Your task to perform on an android device: open app "Spotify: Music and Podcasts" (install if not already installed) and enter user name: "principled@inbox.com" and password: "arrests" Image 0: 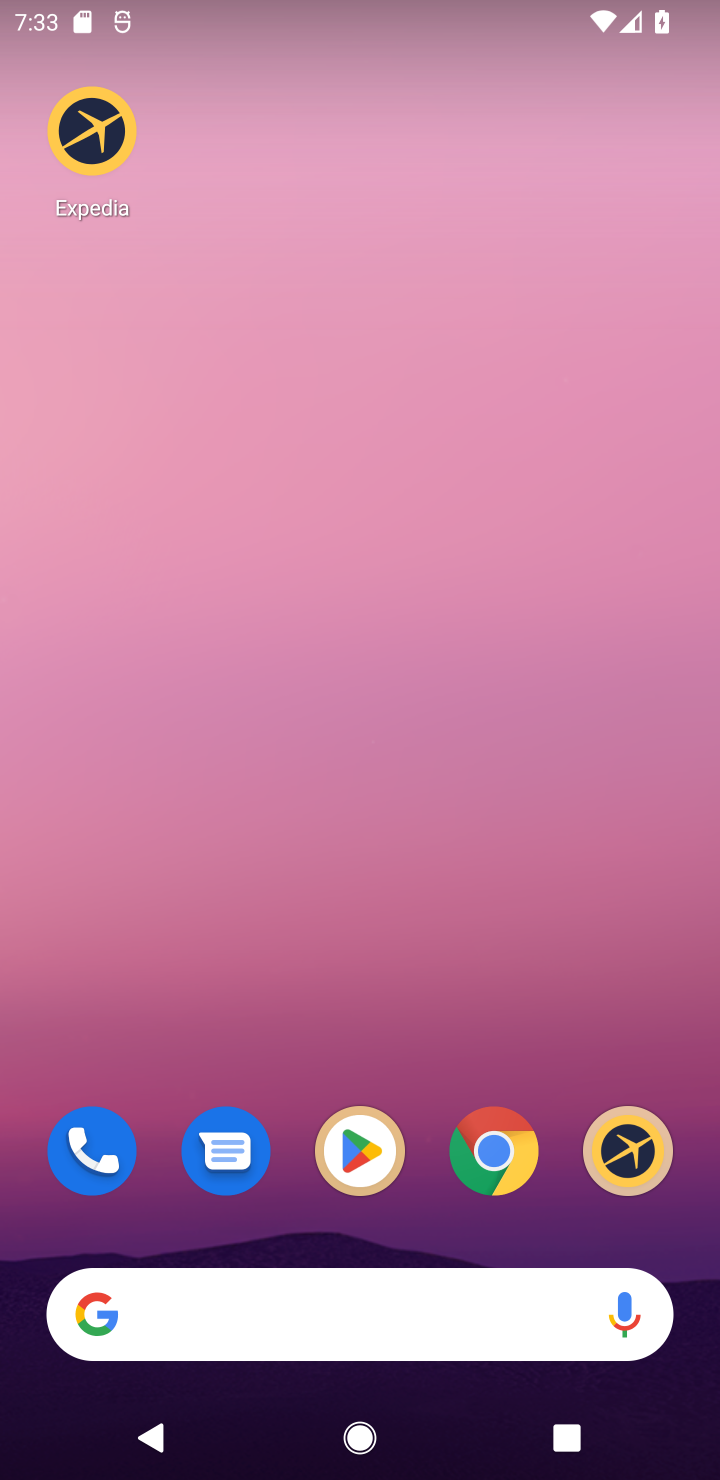
Step 0: click (359, 1152)
Your task to perform on an android device: open app "Spotify: Music and Podcasts" (install if not already installed) and enter user name: "principled@inbox.com" and password: "arrests" Image 1: 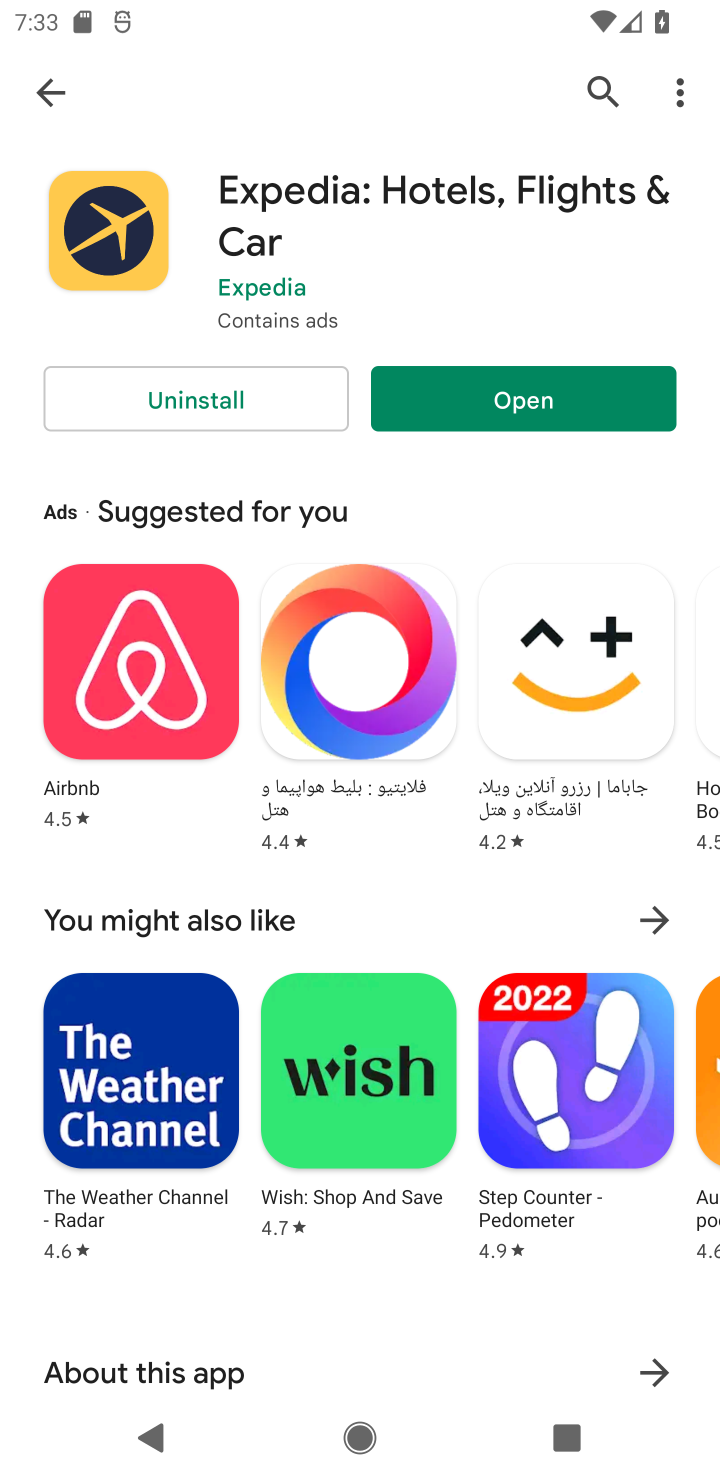
Step 1: click (603, 90)
Your task to perform on an android device: open app "Spotify: Music and Podcasts" (install if not already installed) and enter user name: "principled@inbox.com" and password: "arrests" Image 2: 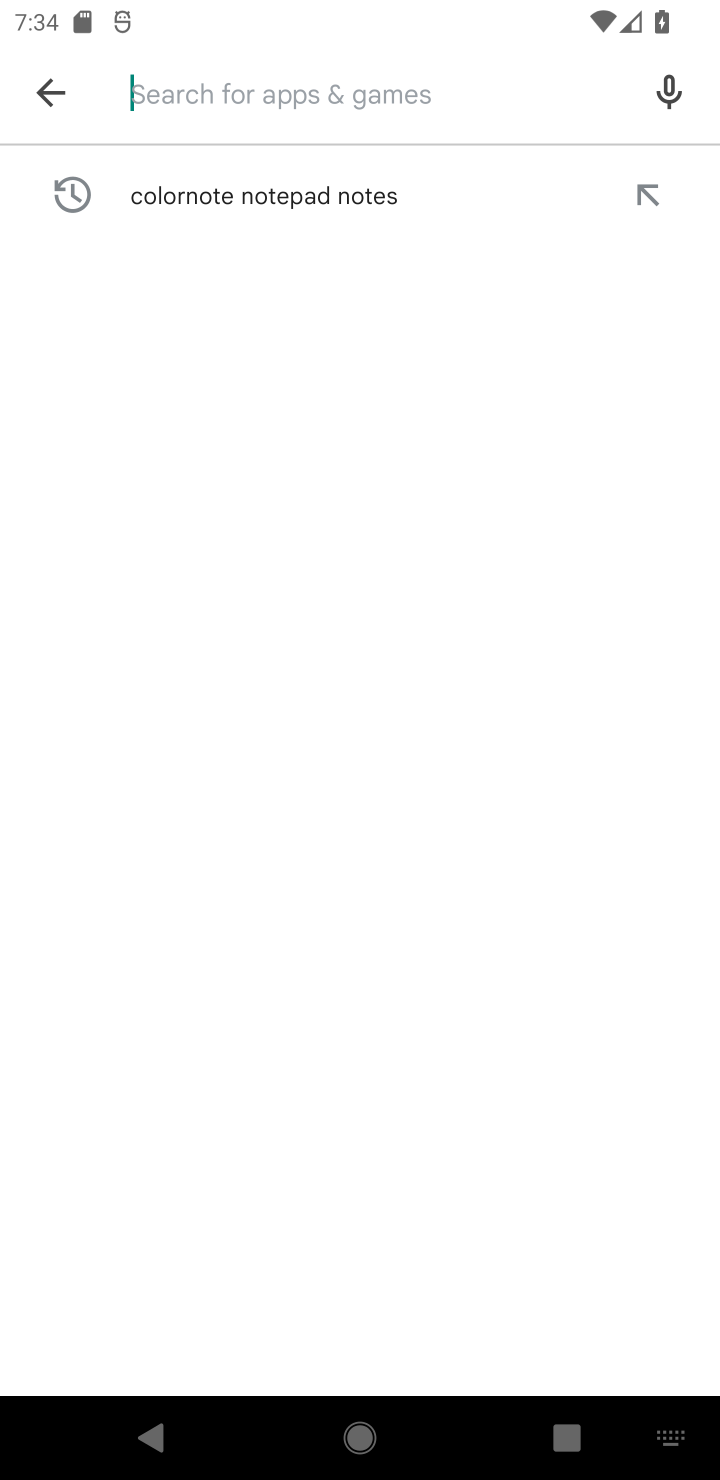
Step 2: type "Spotify: Music and Podcasts"
Your task to perform on an android device: open app "Spotify: Music and Podcasts" (install if not already installed) and enter user name: "principled@inbox.com" and password: "arrests" Image 3: 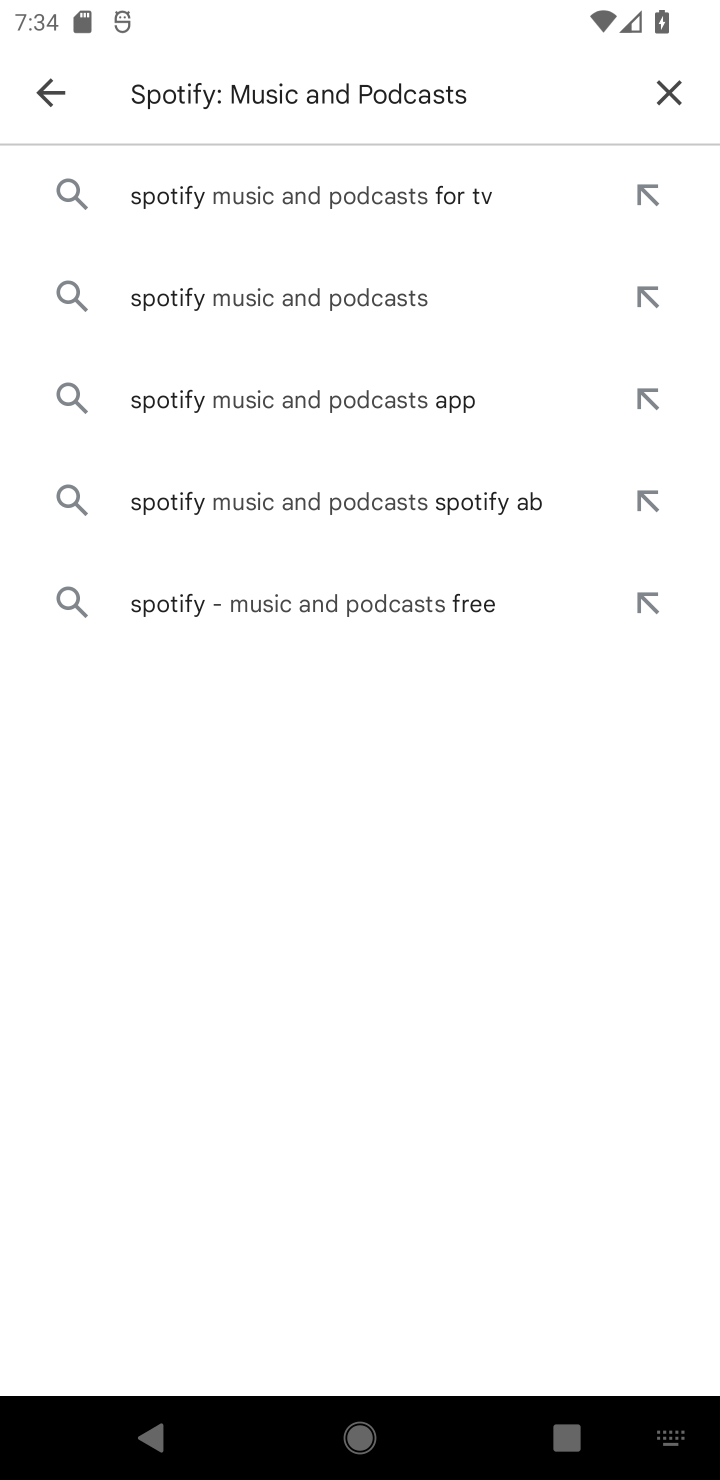
Step 3: click (250, 181)
Your task to perform on an android device: open app "Spotify: Music and Podcasts" (install if not already installed) and enter user name: "principled@inbox.com" and password: "arrests" Image 4: 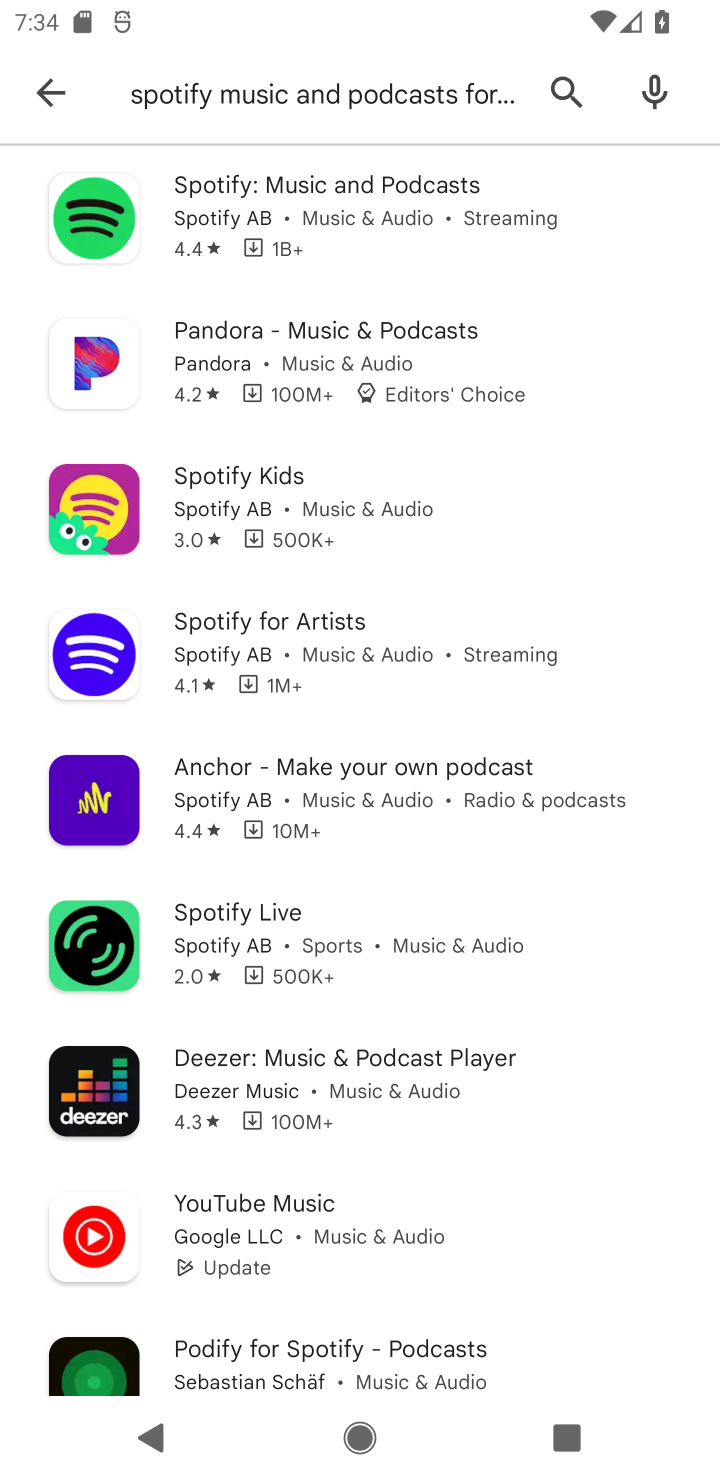
Step 4: click (284, 190)
Your task to perform on an android device: open app "Spotify: Music and Podcasts" (install if not already installed) and enter user name: "principled@inbox.com" and password: "arrests" Image 5: 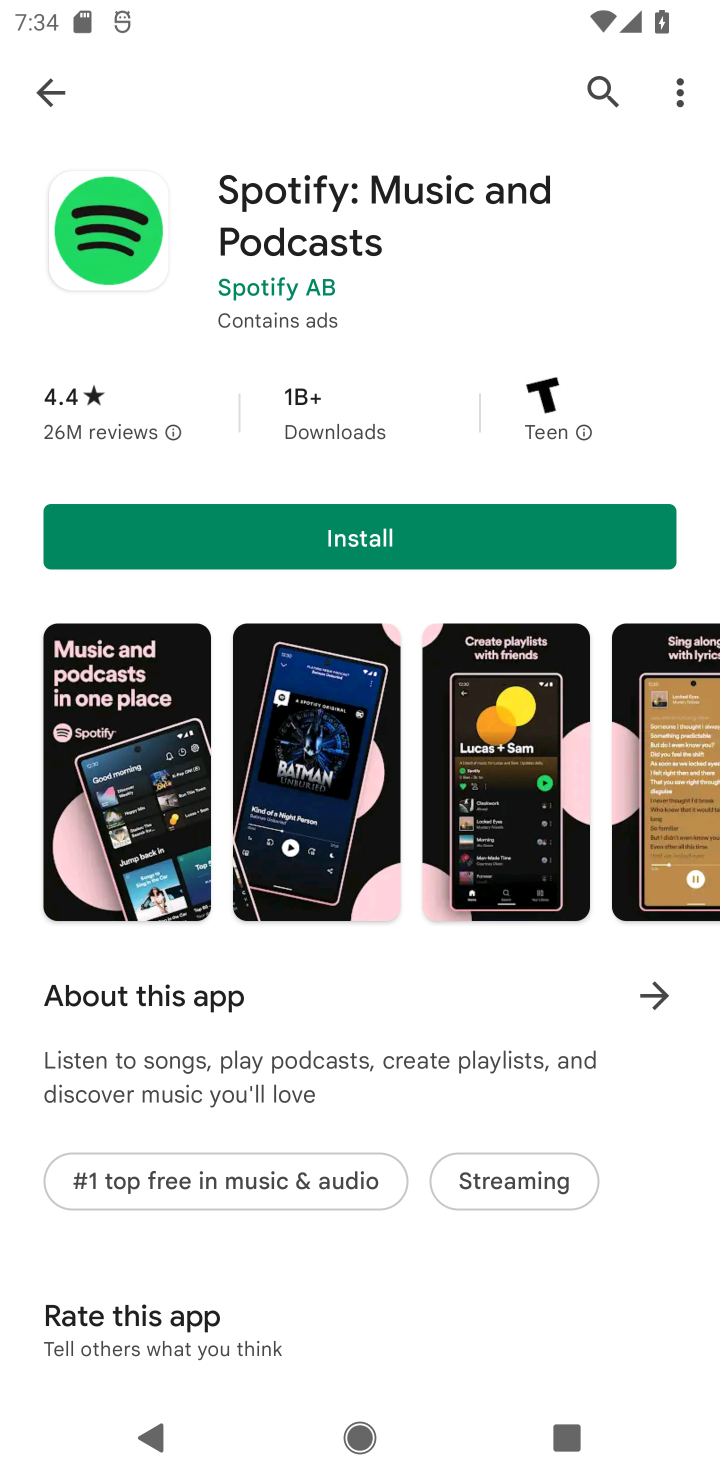
Step 5: click (343, 537)
Your task to perform on an android device: open app "Spotify: Music and Podcasts" (install if not already installed) and enter user name: "principled@inbox.com" and password: "arrests" Image 6: 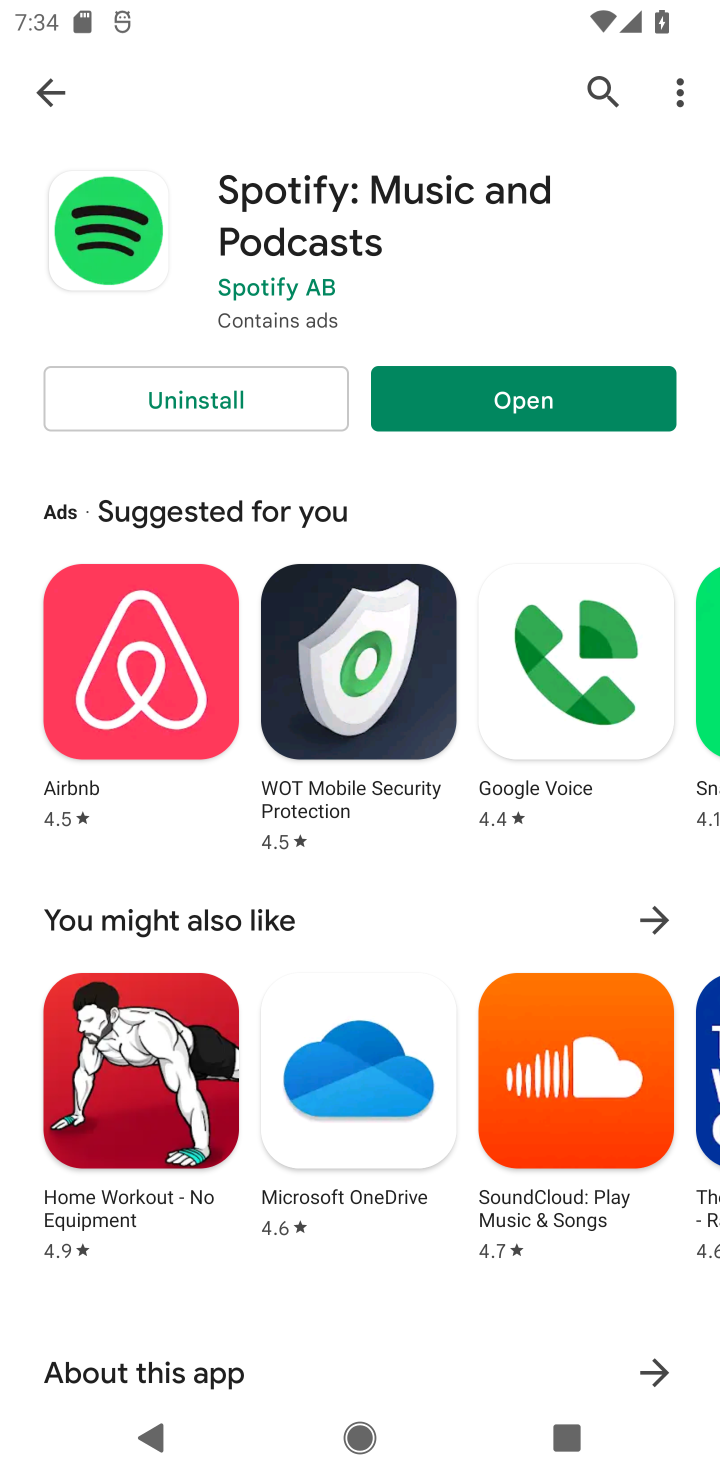
Step 6: click (512, 397)
Your task to perform on an android device: open app "Spotify: Music and Podcasts" (install if not already installed) and enter user name: "principled@inbox.com" and password: "arrests" Image 7: 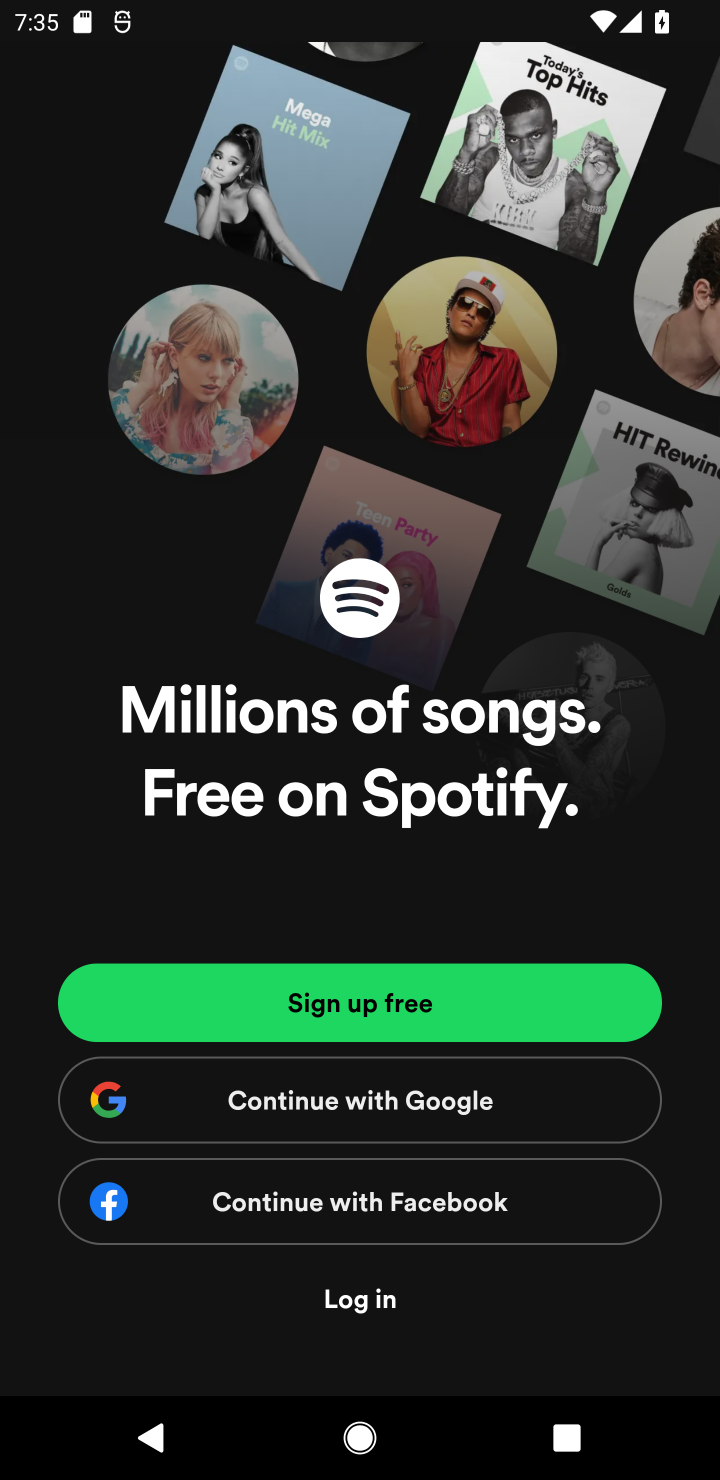
Step 7: click (363, 1300)
Your task to perform on an android device: open app "Spotify: Music and Podcasts" (install if not already installed) and enter user name: "principled@inbox.com" and password: "arrests" Image 8: 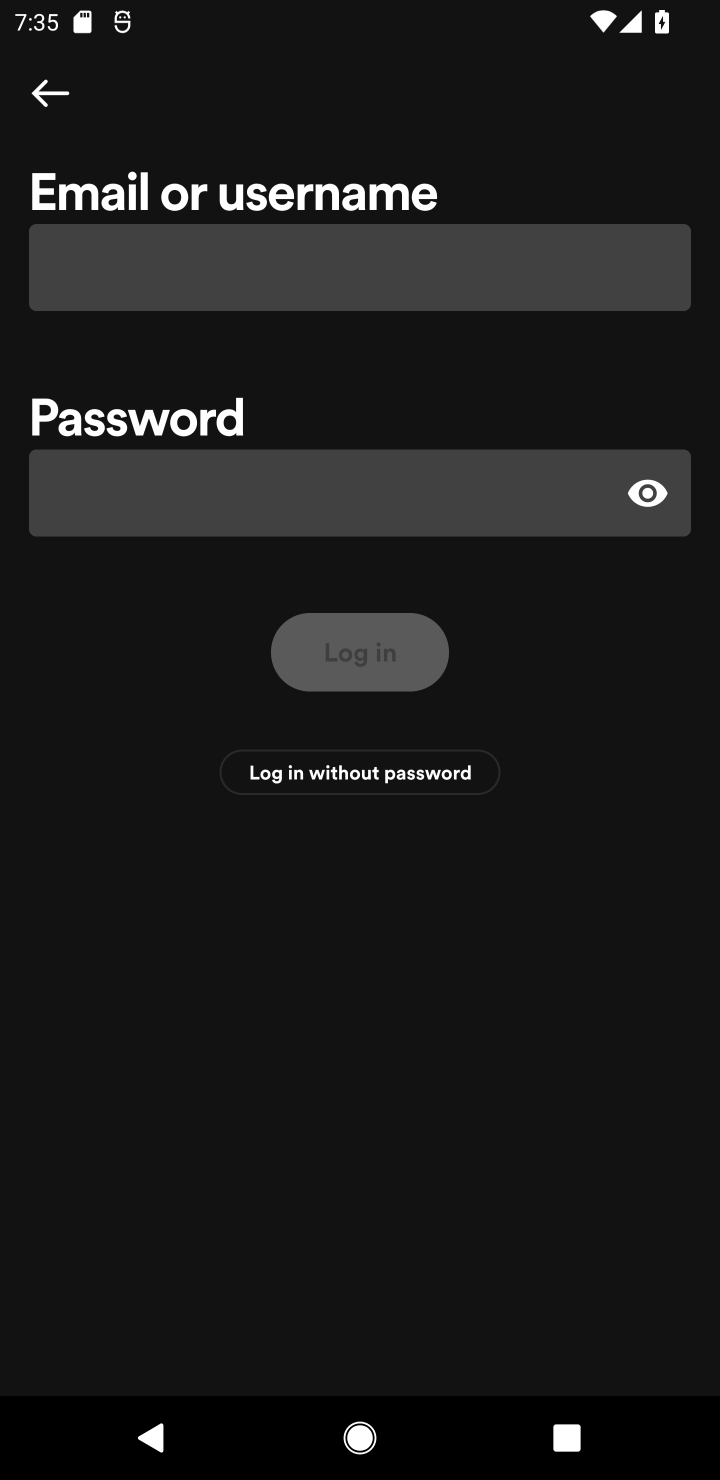
Step 8: click (196, 265)
Your task to perform on an android device: open app "Spotify: Music and Podcasts" (install if not already installed) and enter user name: "principled@inbox.com" and password: "arrests" Image 9: 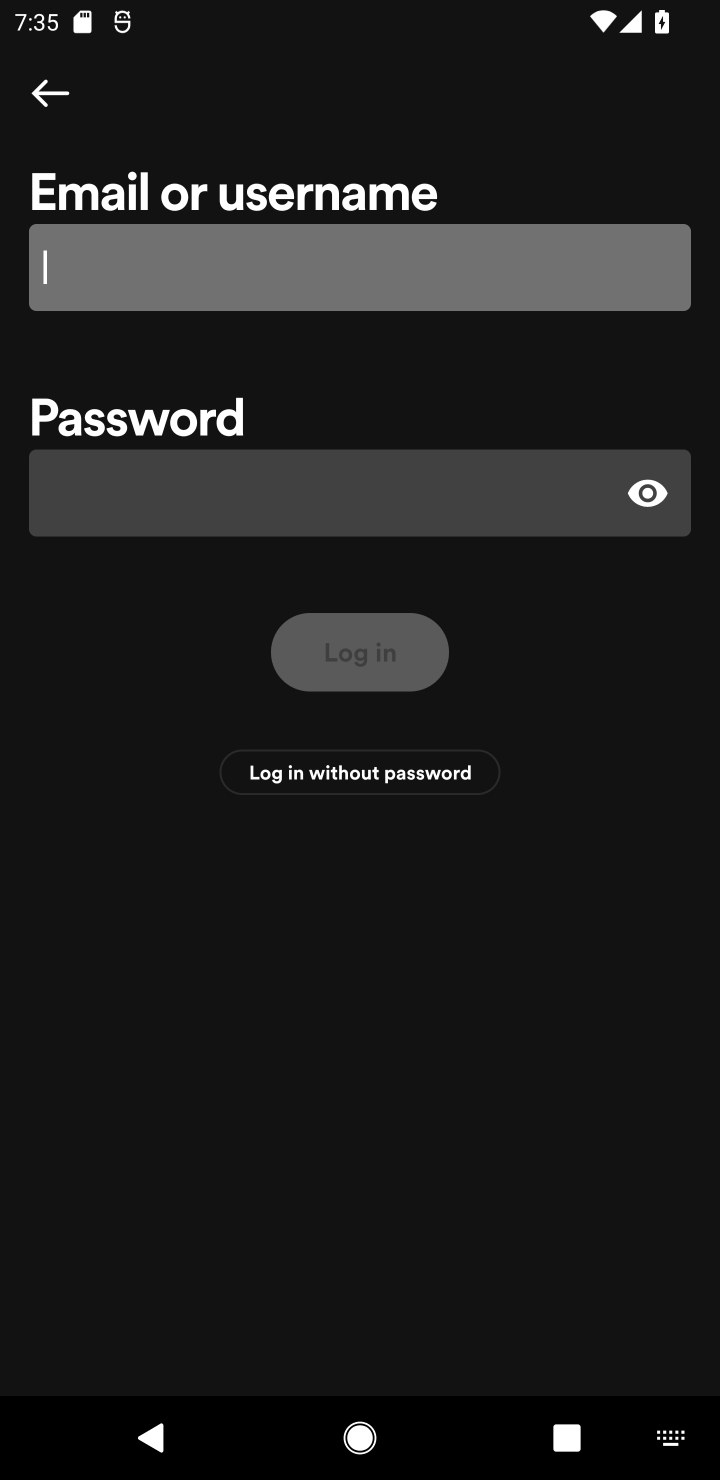
Step 9: type "principled@inbox.com"
Your task to perform on an android device: open app "Spotify: Music and Podcasts" (install if not already installed) and enter user name: "principled@inbox.com" and password: "arrests" Image 10: 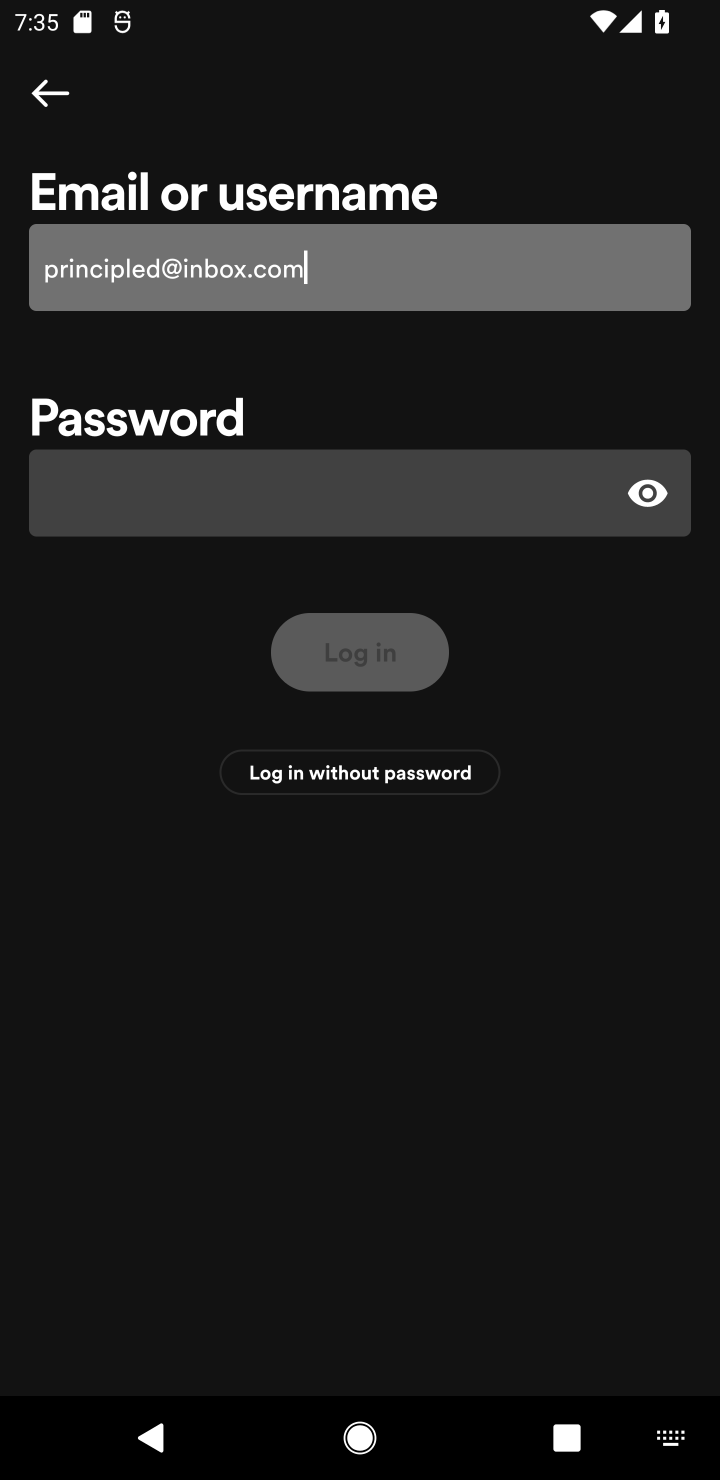
Step 10: click (229, 490)
Your task to perform on an android device: open app "Spotify: Music and Podcasts" (install if not already installed) and enter user name: "principled@inbox.com" and password: "arrests" Image 11: 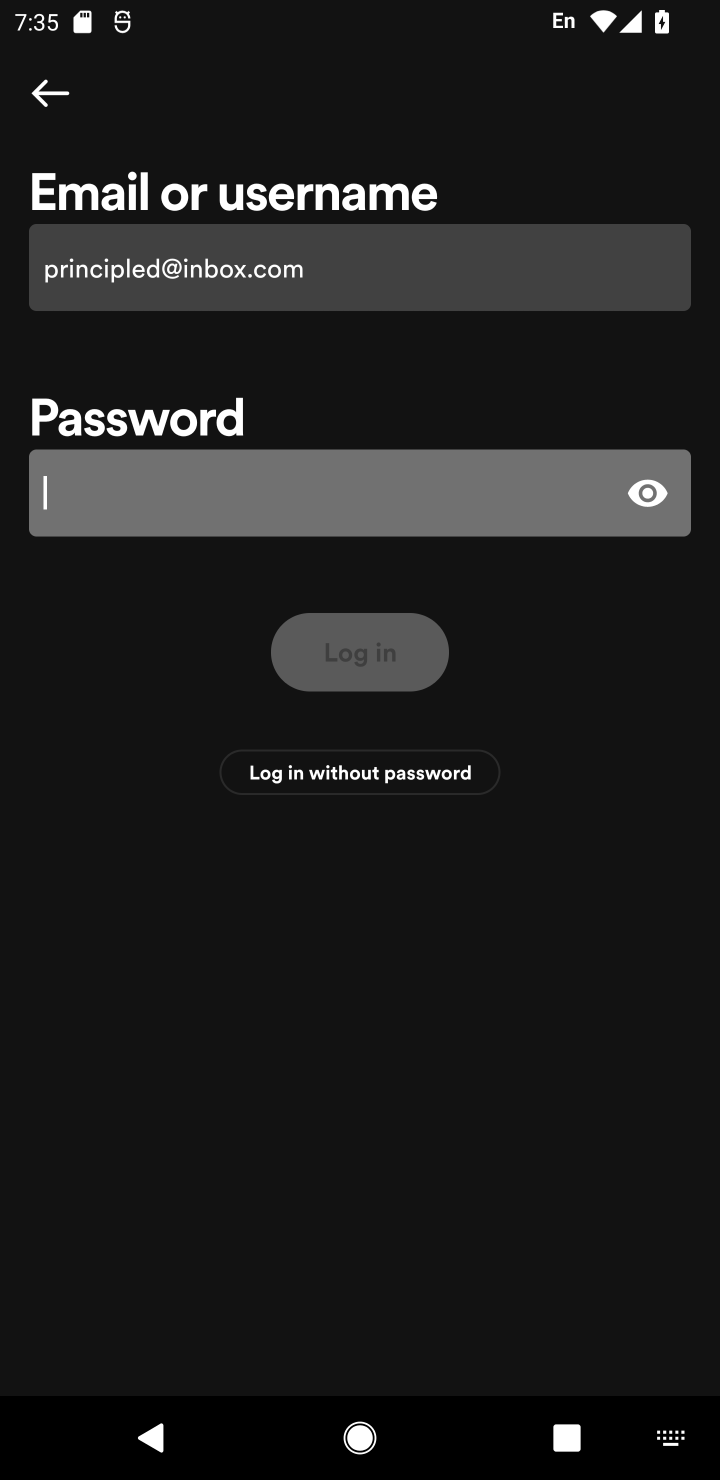
Step 11: type "arrests"
Your task to perform on an android device: open app "Spotify: Music and Podcasts" (install if not already installed) and enter user name: "principled@inbox.com" and password: "arrests" Image 12: 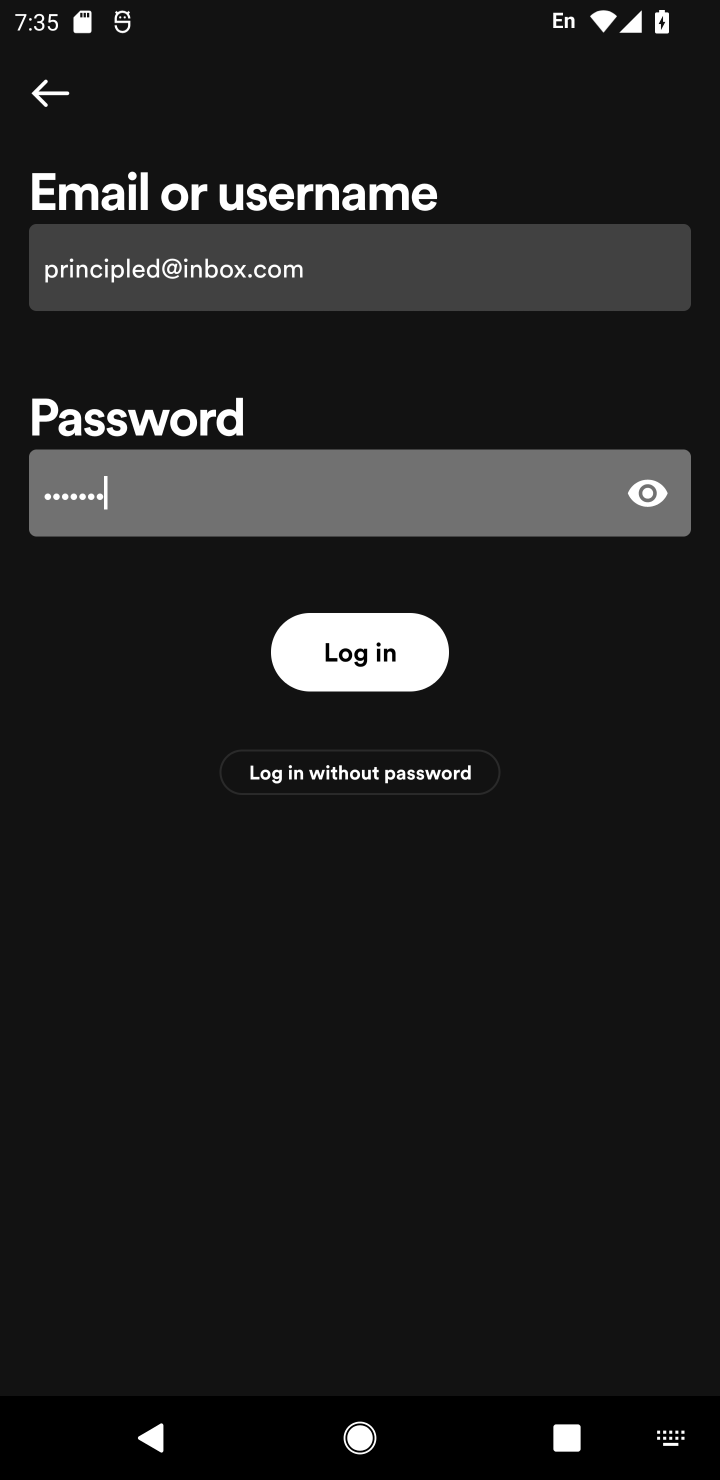
Step 12: task complete